Your task to perform on an android device: Play the last video I watched on Youtube Image 0: 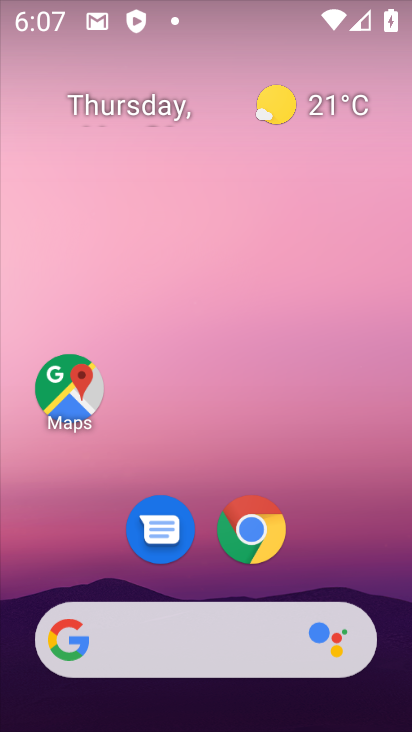
Step 0: drag from (331, 533) to (193, 101)
Your task to perform on an android device: Play the last video I watched on Youtube Image 1: 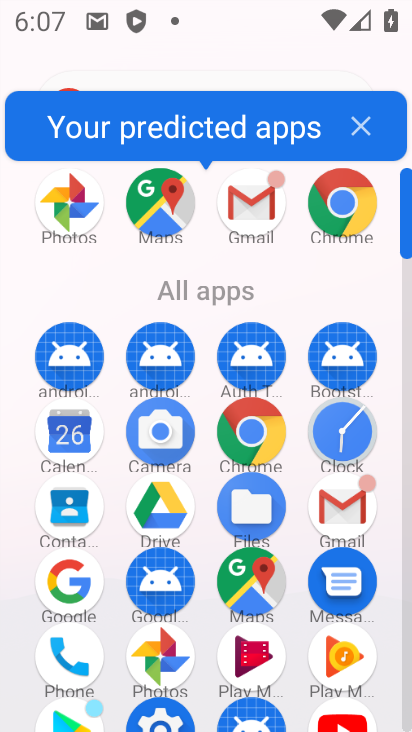
Step 1: click (339, 712)
Your task to perform on an android device: Play the last video I watched on Youtube Image 2: 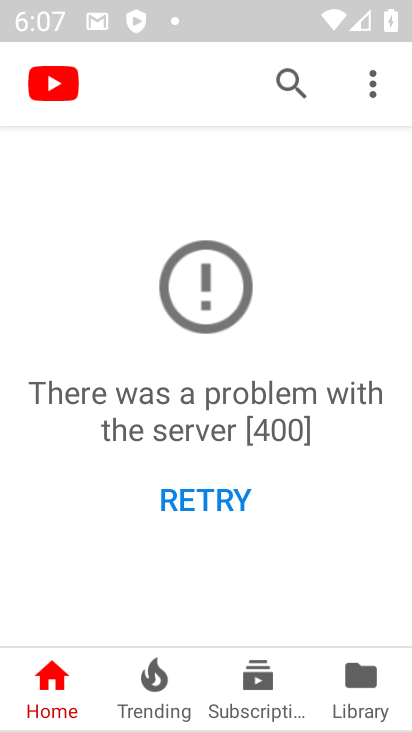
Step 2: click (361, 701)
Your task to perform on an android device: Play the last video I watched on Youtube Image 3: 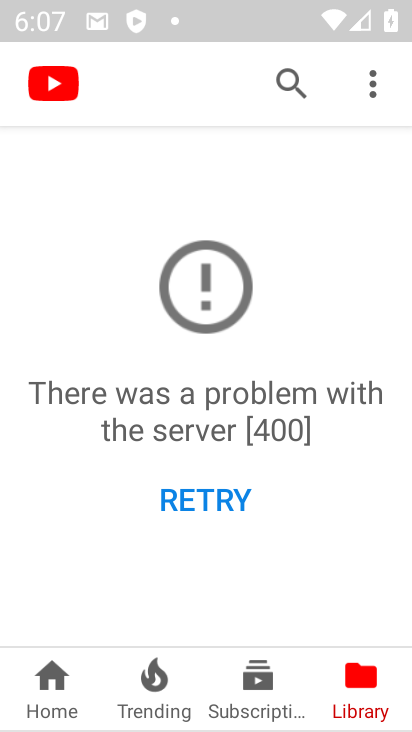
Step 3: click (358, 674)
Your task to perform on an android device: Play the last video I watched on Youtube Image 4: 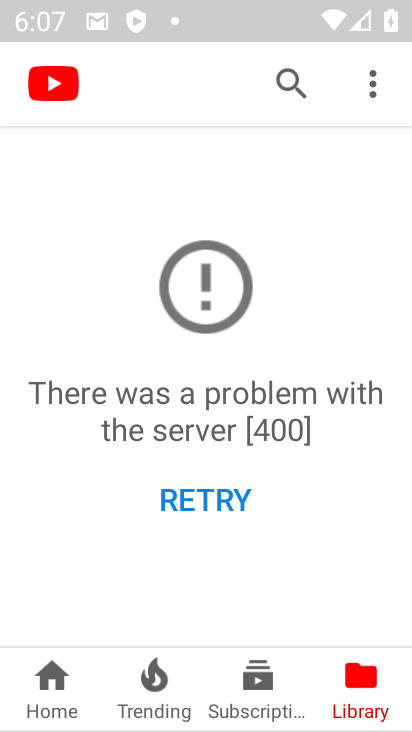
Step 4: click (375, 85)
Your task to perform on an android device: Play the last video I watched on Youtube Image 5: 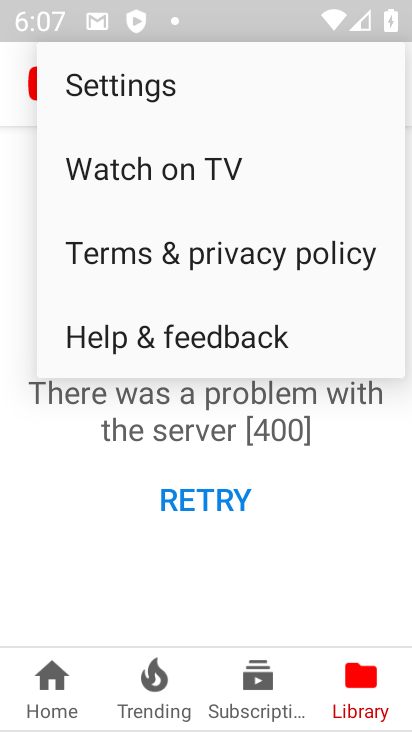
Step 5: click (107, 495)
Your task to perform on an android device: Play the last video I watched on Youtube Image 6: 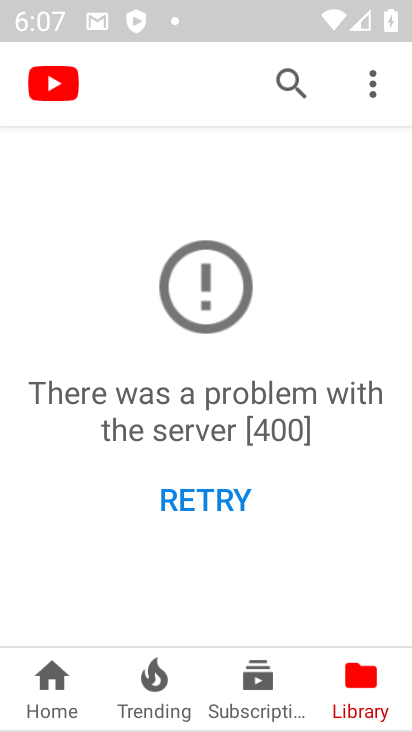
Step 6: click (354, 678)
Your task to perform on an android device: Play the last video I watched on Youtube Image 7: 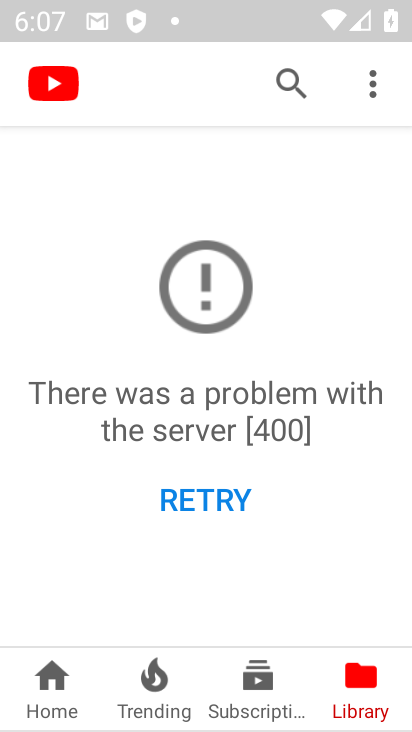
Step 7: task complete